Your task to perform on an android device: change the clock display to digital Image 0: 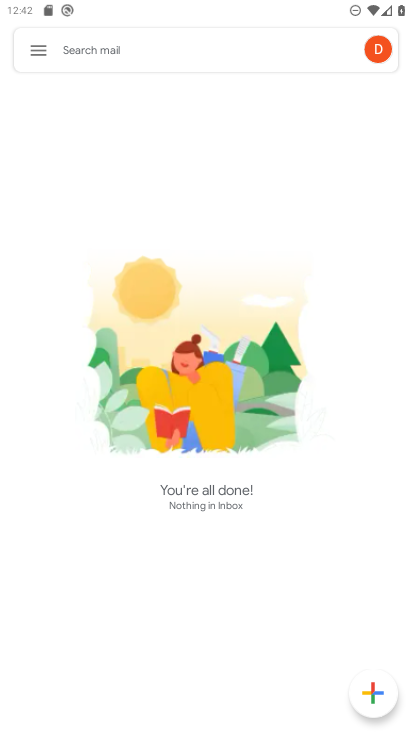
Step 0: press home button
Your task to perform on an android device: change the clock display to digital Image 1: 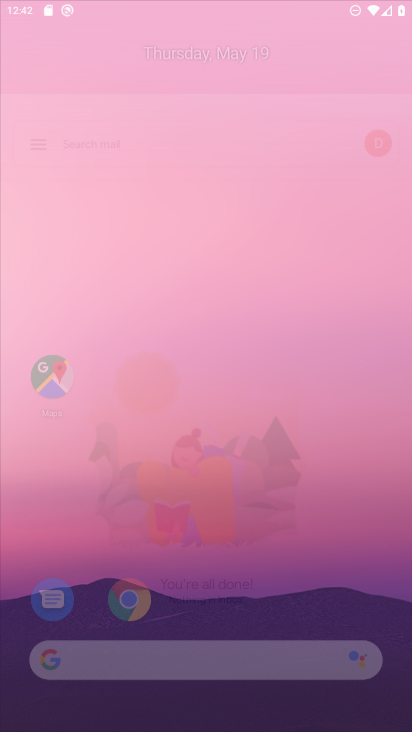
Step 1: drag from (199, 641) to (211, 157)
Your task to perform on an android device: change the clock display to digital Image 2: 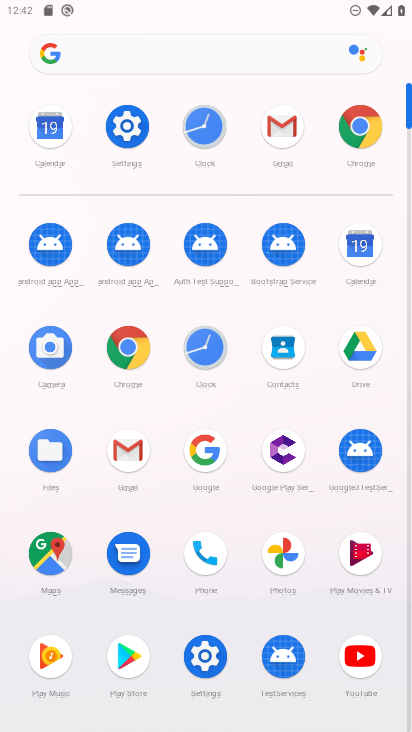
Step 2: click (203, 338)
Your task to perform on an android device: change the clock display to digital Image 3: 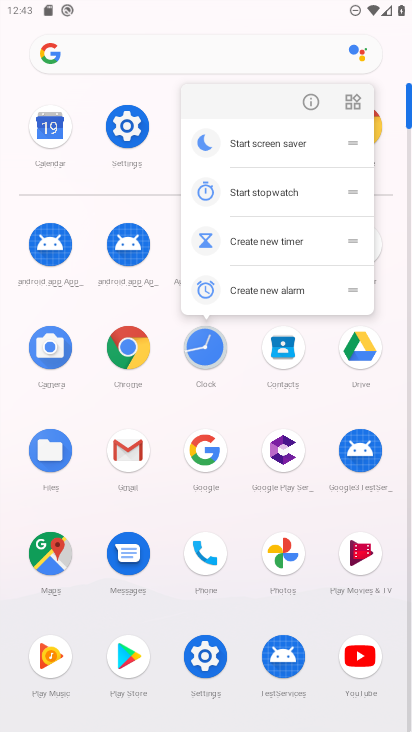
Step 3: click (306, 105)
Your task to perform on an android device: change the clock display to digital Image 4: 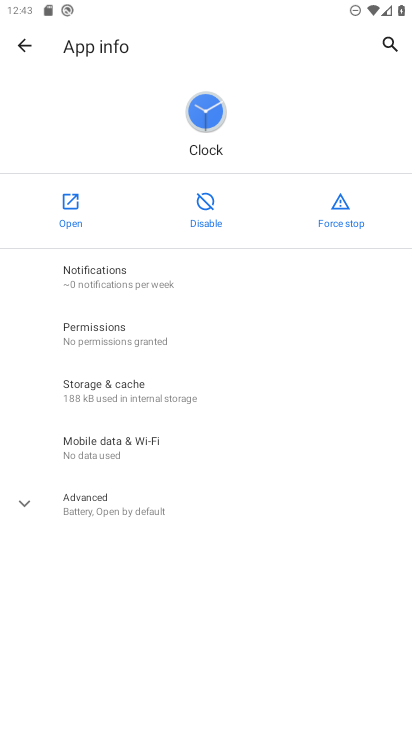
Step 4: click (70, 210)
Your task to perform on an android device: change the clock display to digital Image 5: 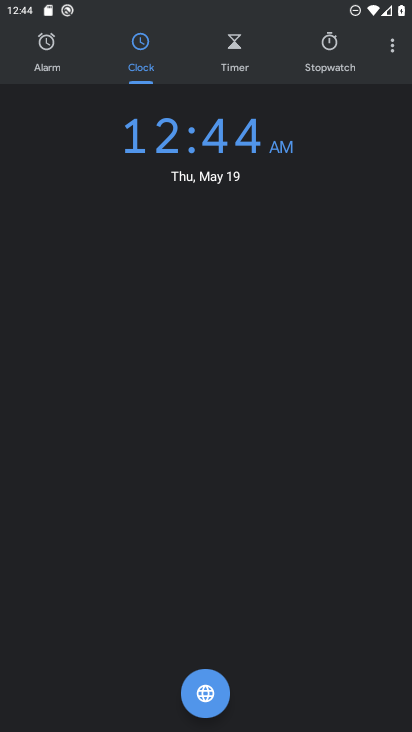
Step 5: drag from (251, 663) to (296, 36)
Your task to perform on an android device: change the clock display to digital Image 6: 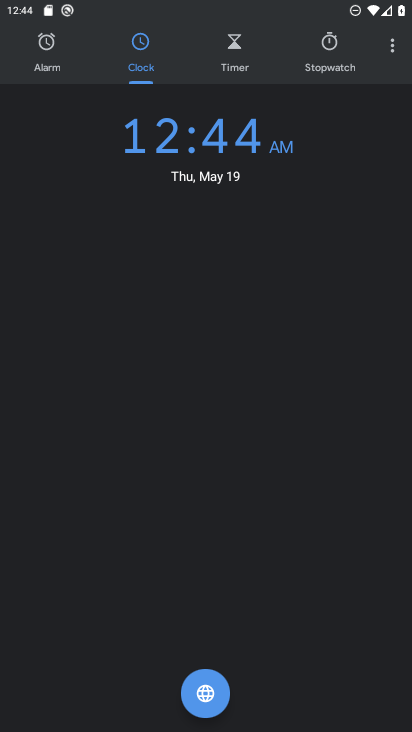
Step 6: click (397, 41)
Your task to perform on an android device: change the clock display to digital Image 7: 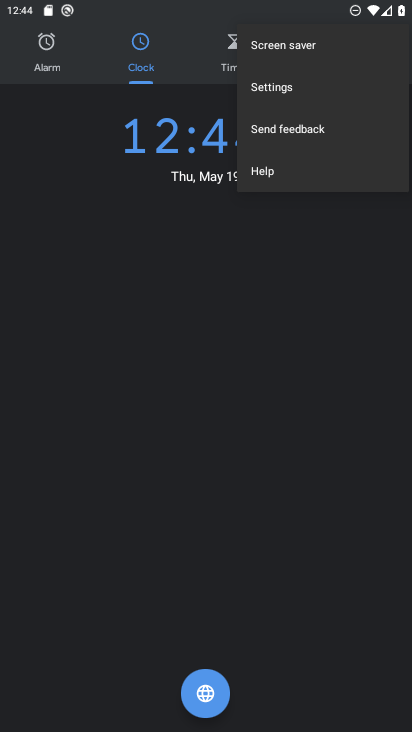
Step 7: click (282, 87)
Your task to perform on an android device: change the clock display to digital Image 8: 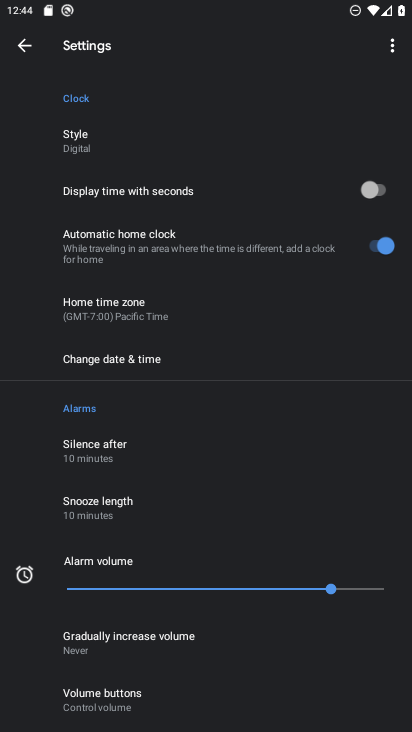
Step 8: click (122, 153)
Your task to perform on an android device: change the clock display to digital Image 9: 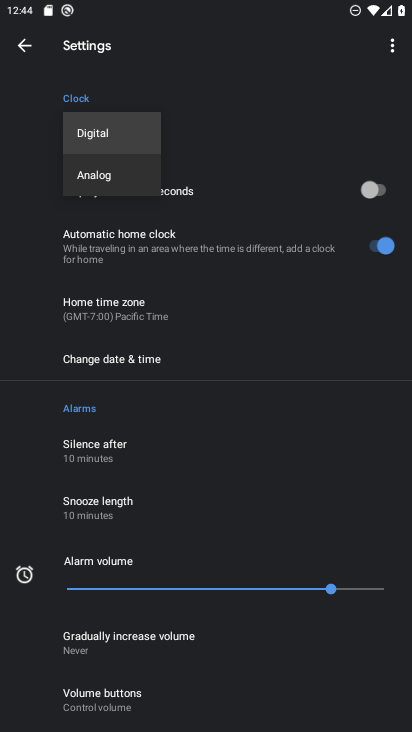
Step 9: task complete